Your task to perform on an android device: Go to eBay Image 0: 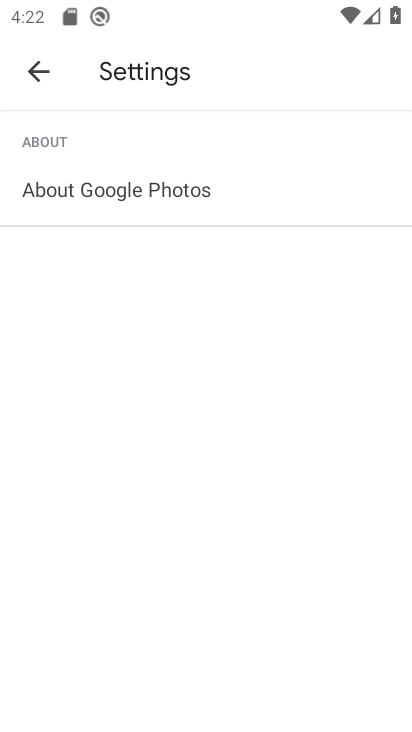
Step 0: press home button
Your task to perform on an android device: Go to eBay Image 1: 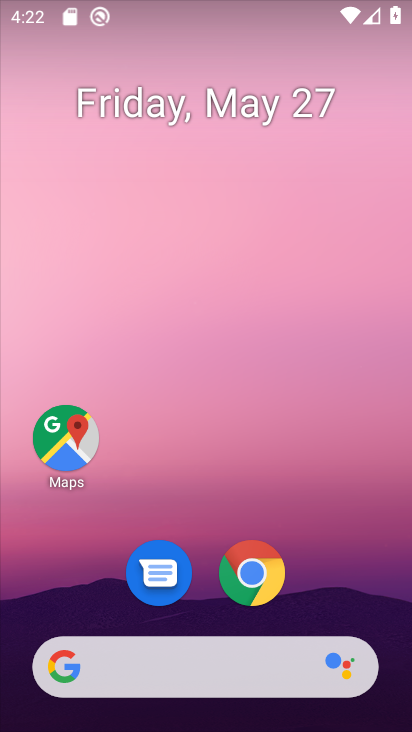
Step 1: click (207, 669)
Your task to perform on an android device: Go to eBay Image 2: 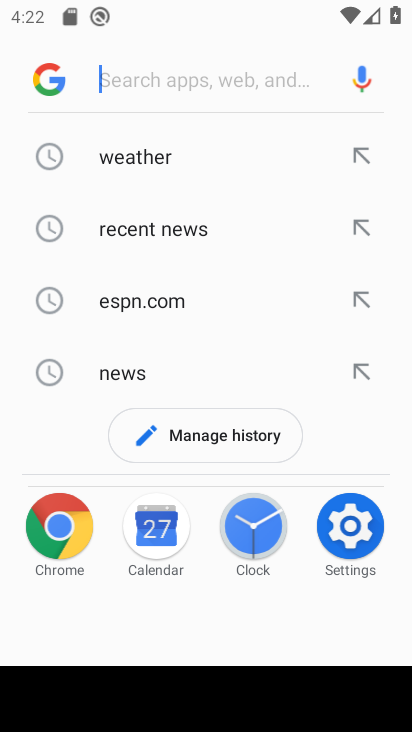
Step 2: type "ebay"
Your task to perform on an android device: Go to eBay Image 3: 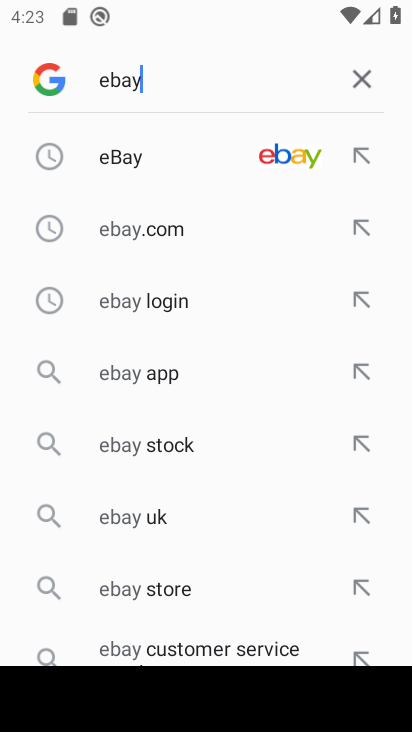
Step 3: click (113, 156)
Your task to perform on an android device: Go to eBay Image 4: 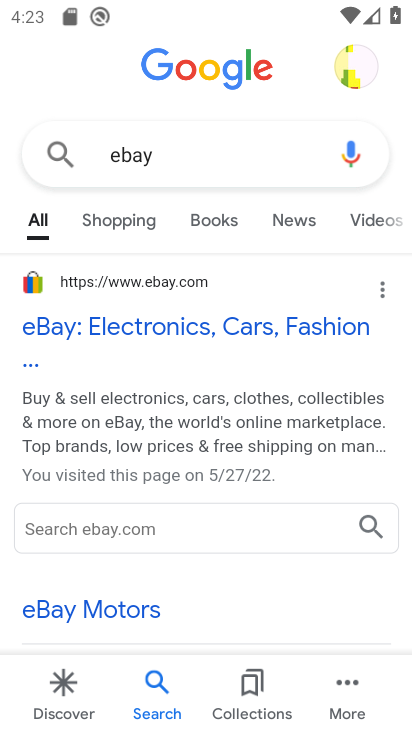
Step 4: click (60, 320)
Your task to perform on an android device: Go to eBay Image 5: 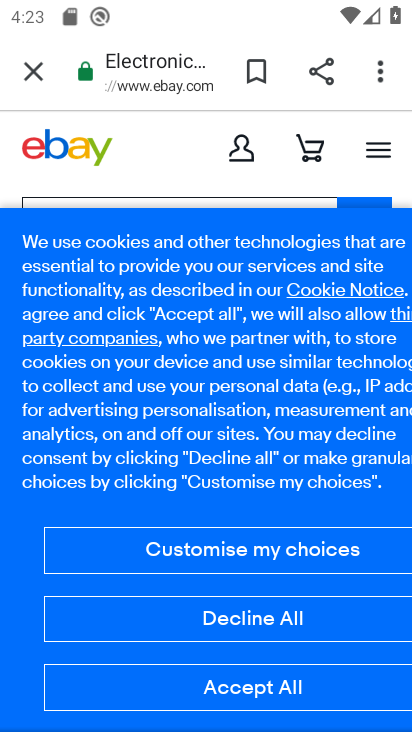
Step 5: task complete